Your task to perform on an android device: turn off notifications settings in the gmail app Image 0: 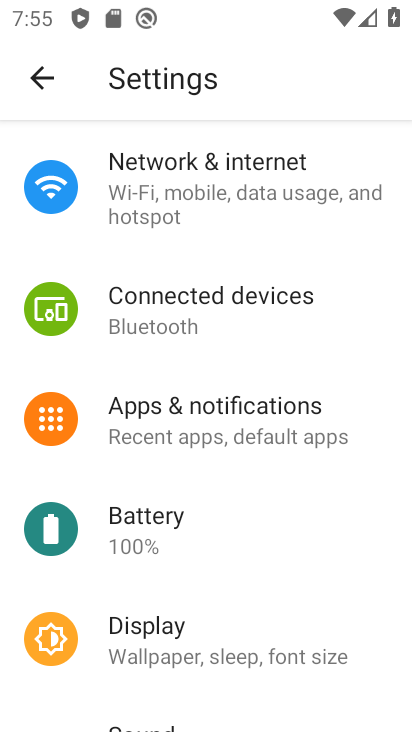
Step 0: press home button
Your task to perform on an android device: turn off notifications settings in the gmail app Image 1: 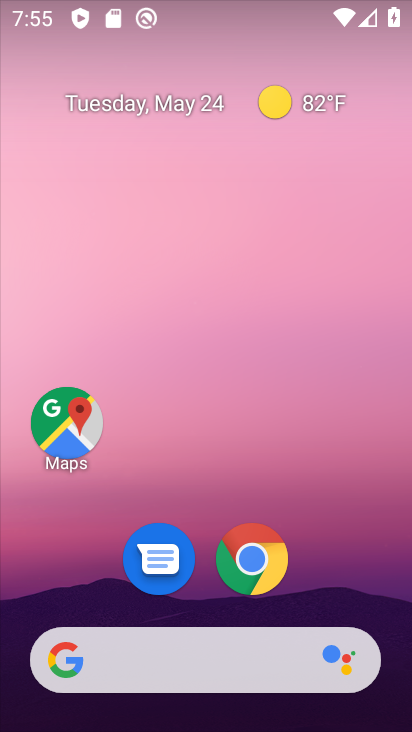
Step 1: drag from (381, 585) to (396, 279)
Your task to perform on an android device: turn off notifications settings in the gmail app Image 2: 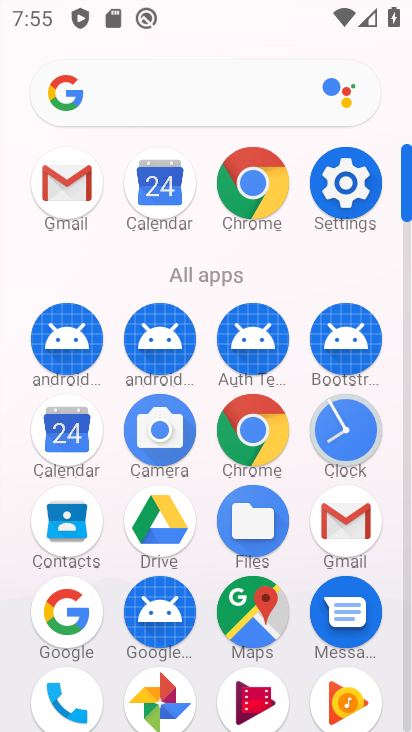
Step 2: drag from (398, 566) to (409, 363)
Your task to perform on an android device: turn off notifications settings in the gmail app Image 3: 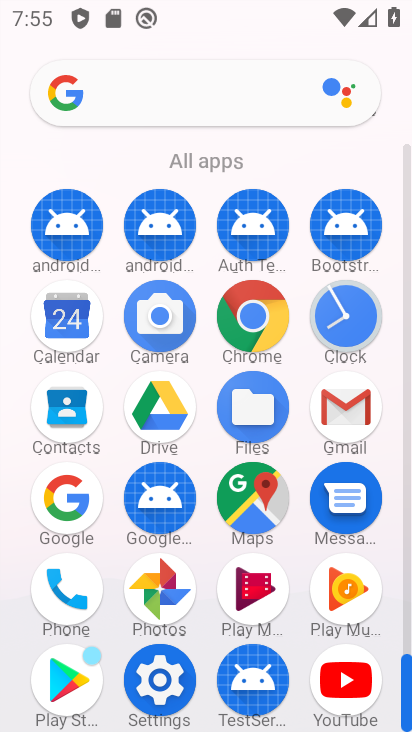
Step 3: click (357, 415)
Your task to perform on an android device: turn off notifications settings in the gmail app Image 4: 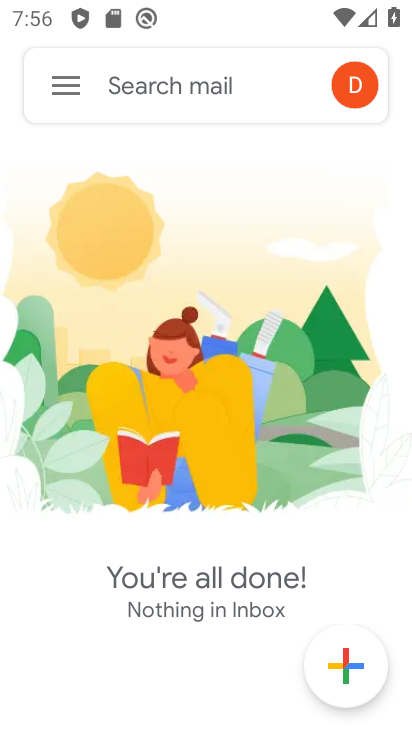
Step 4: click (56, 88)
Your task to perform on an android device: turn off notifications settings in the gmail app Image 5: 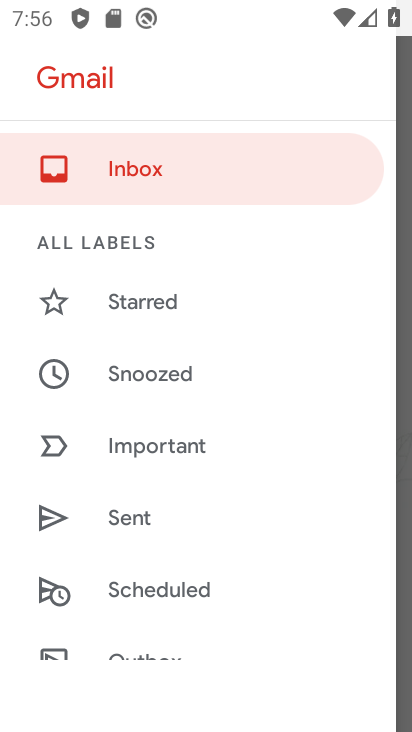
Step 5: drag from (301, 520) to (320, 356)
Your task to perform on an android device: turn off notifications settings in the gmail app Image 6: 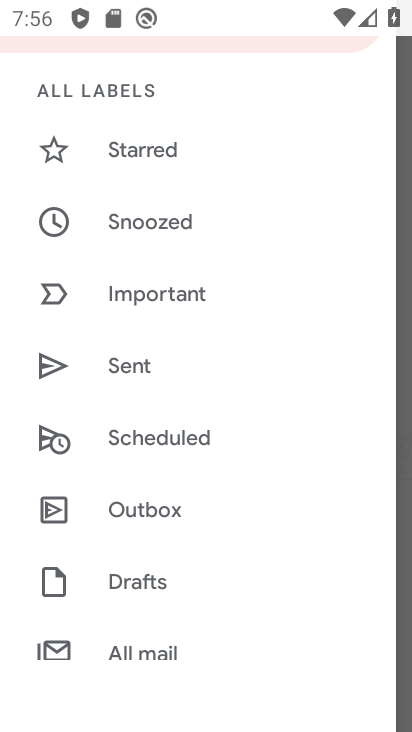
Step 6: drag from (345, 557) to (345, 400)
Your task to perform on an android device: turn off notifications settings in the gmail app Image 7: 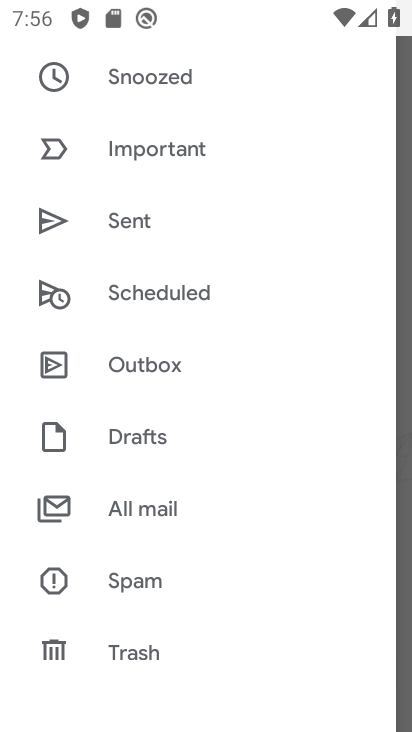
Step 7: drag from (330, 579) to (339, 416)
Your task to perform on an android device: turn off notifications settings in the gmail app Image 8: 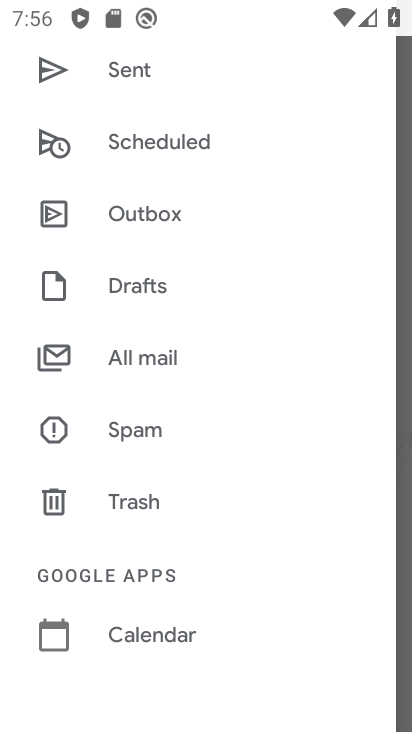
Step 8: drag from (330, 587) to (341, 422)
Your task to perform on an android device: turn off notifications settings in the gmail app Image 9: 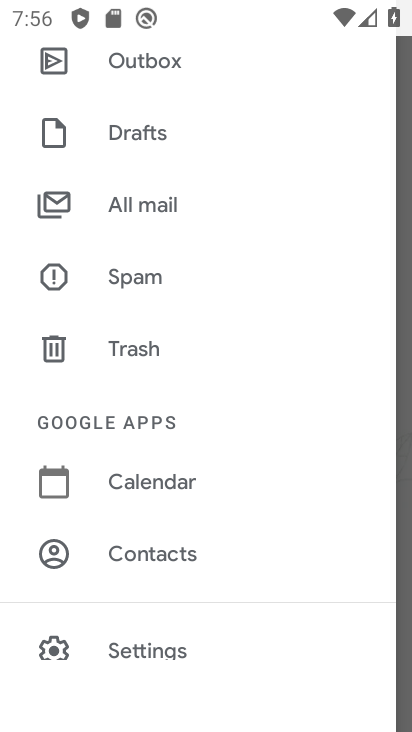
Step 9: drag from (332, 587) to (334, 460)
Your task to perform on an android device: turn off notifications settings in the gmail app Image 10: 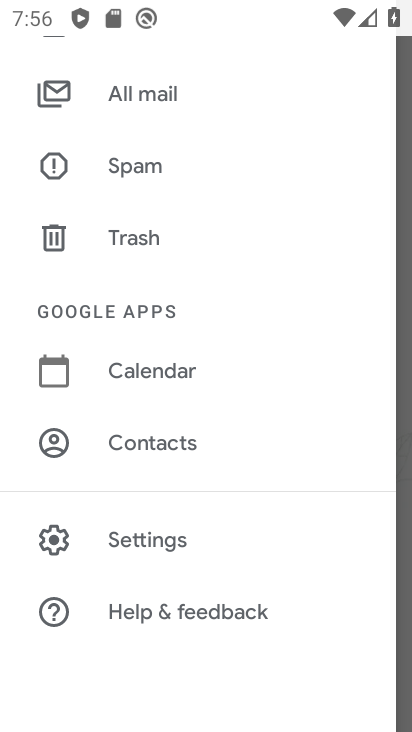
Step 10: click (182, 549)
Your task to perform on an android device: turn off notifications settings in the gmail app Image 11: 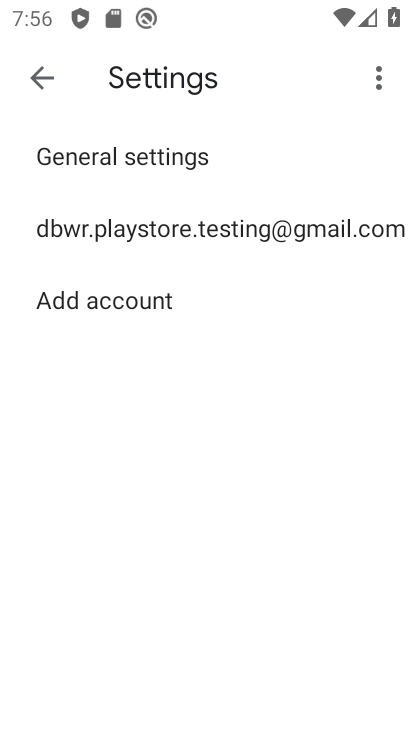
Step 11: click (247, 229)
Your task to perform on an android device: turn off notifications settings in the gmail app Image 12: 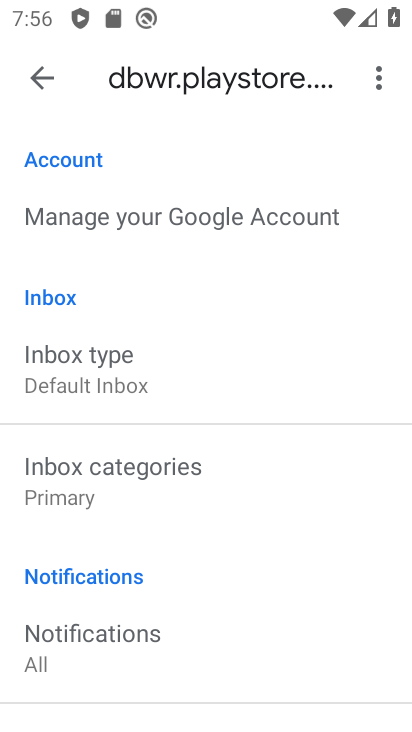
Step 12: drag from (318, 536) to (325, 405)
Your task to perform on an android device: turn off notifications settings in the gmail app Image 13: 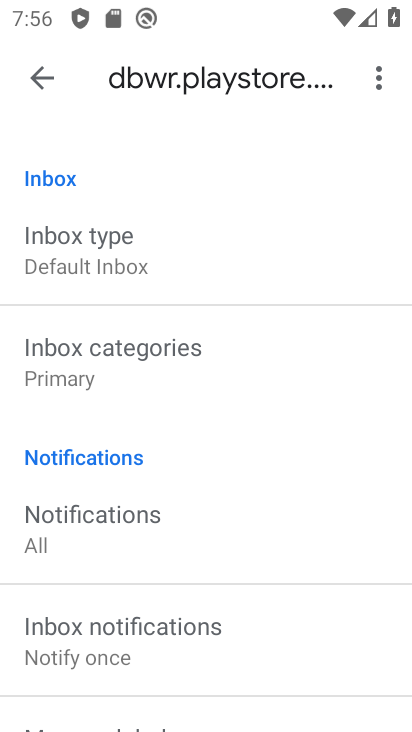
Step 13: drag from (332, 578) to (348, 463)
Your task to perform on an android device: turn off notifications settings in the gmail app Image 14: 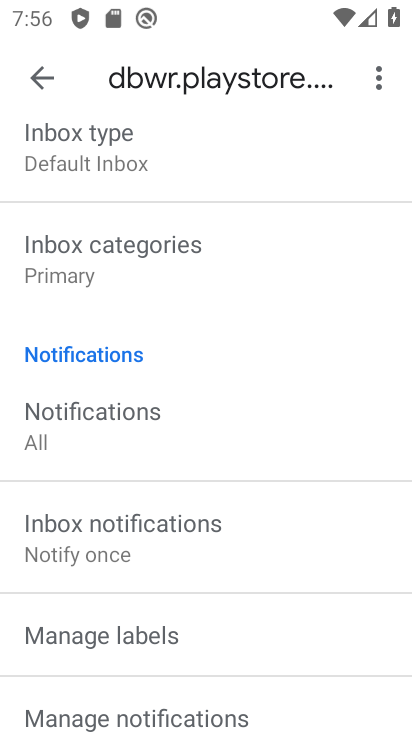
Step 14: drag from (334, 591) to (331, 483)
Your task to perform on an android device: turn off notifications settings in the gmail app Image 15: 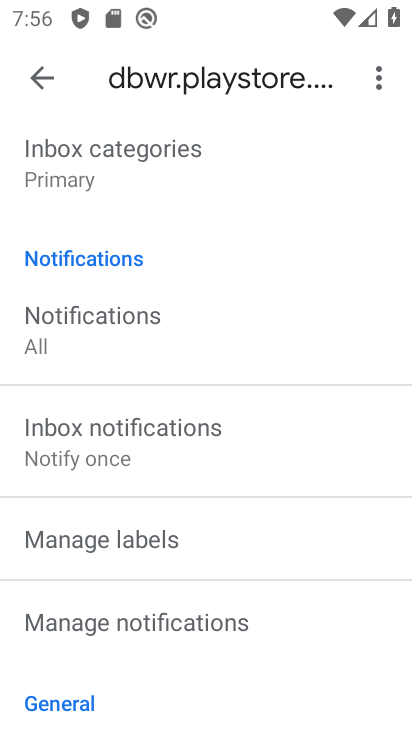
Step 15: drag from (328, 630) to (324, 524)
Your task to perform on an android device: turn off notifications settings in the gmail app Image 16: 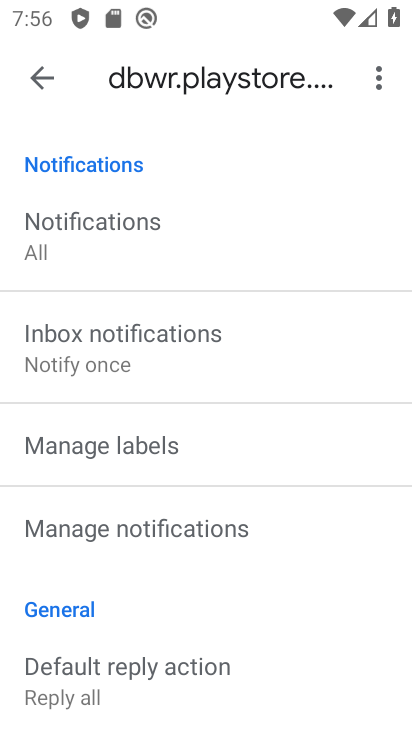
Step 16: drag from (325, 637) to (328, 516)
Your task to perform on an android device: turn off notifications settings in the gmail app Image 17: 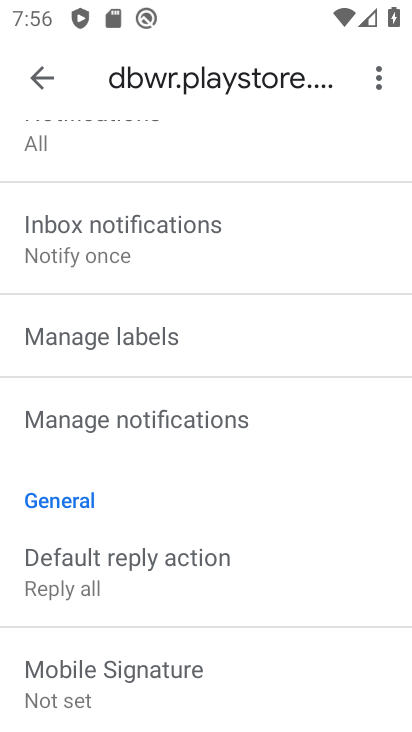
Step 17: drag from (309, 644) to (325, 561)
Your task to perform on an android device: turn off notifications settings in the gmail app Image 18: 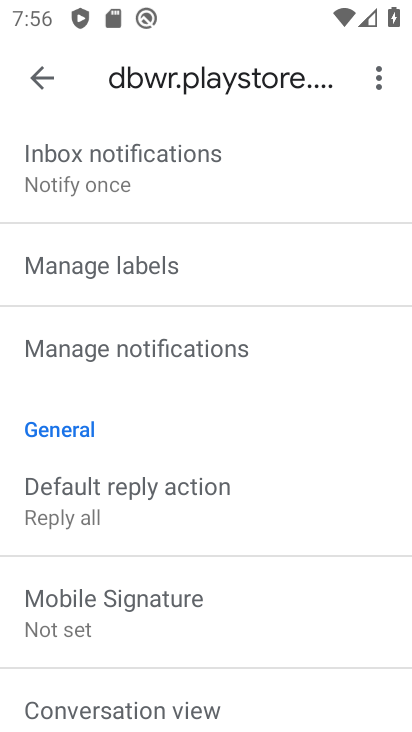
Step 18: click (259, 358)
Your task to perform on an android device: turn off notifications settings in the gmail app Image 19: 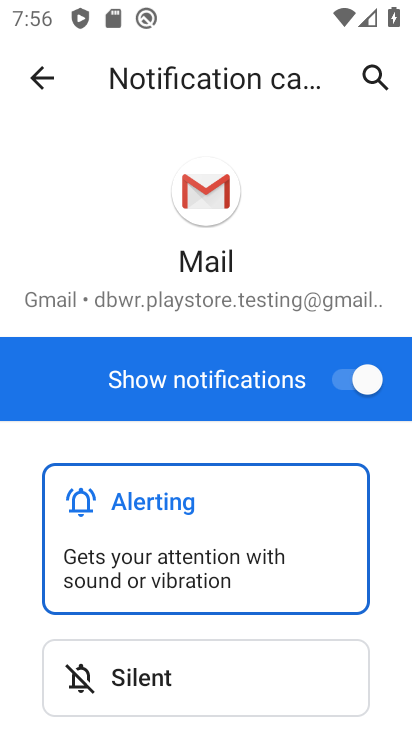
Step 19: click (375, 379)
Your task to perform on an android device: turn off notifications settings in the gmail app Image 20: 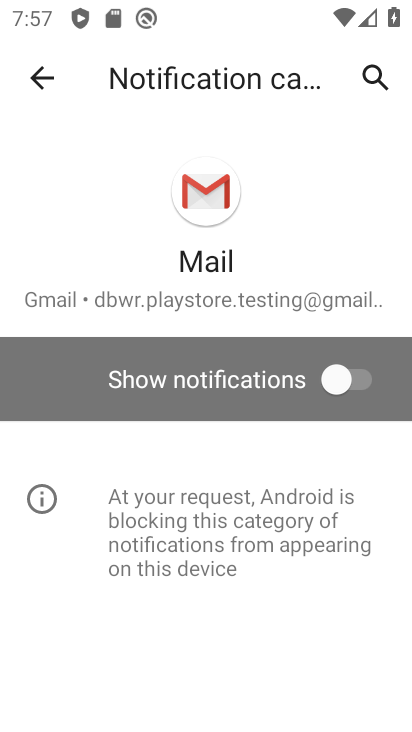
Step 20: task complete